Your task to perform on an android device: Add "corsair k70" to the cart on bestbuy Image 0: 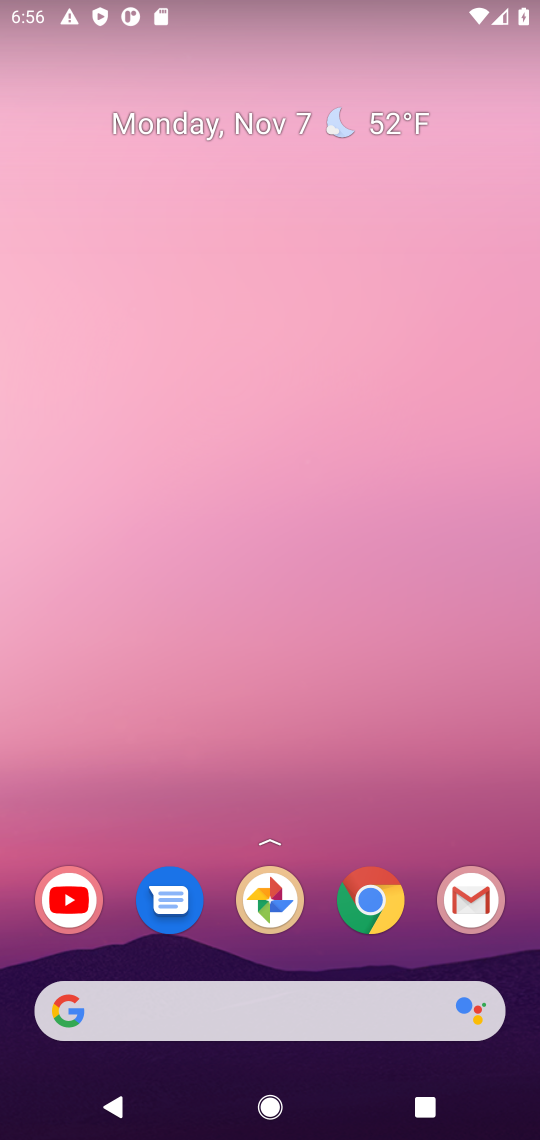
Step 0: click (382, 891)
Your task to perform on an android device: Add "corsair k70" to the cart on bestbuy Image 1: 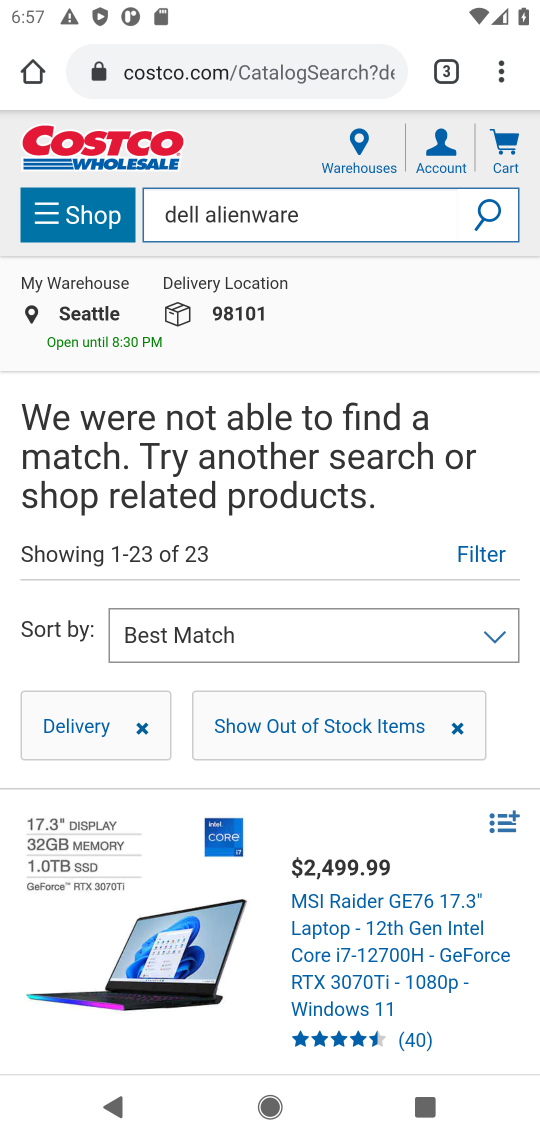
Step 1: click (361, 223)
Your task to perform on an android device: Add "corsair k70" to the cart on bestbuy Image 2: 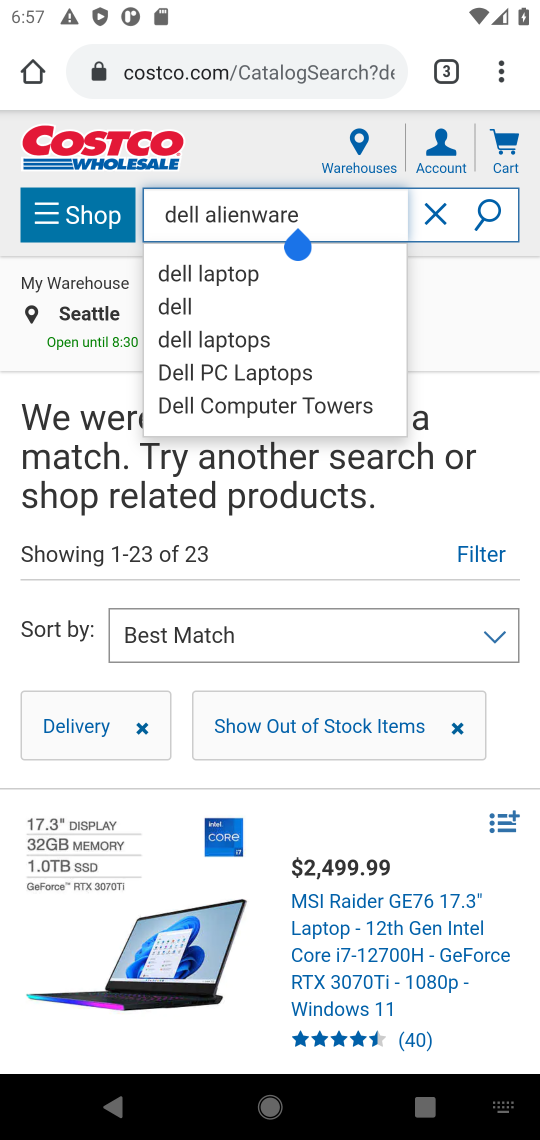
Step 2: click (445, 213)
Your task to perform on an android device: Add "corsair k70" to the cart on bestbuy Image 3: 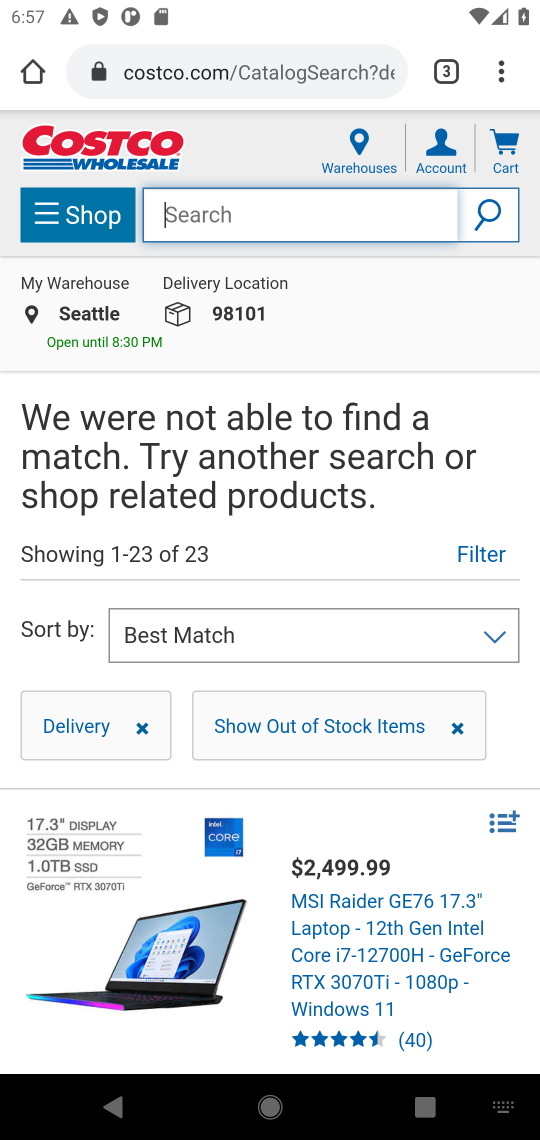
Step 3: click (454, 75)
Your task to perform on an android device: Add "corsair k70" to the cart on bestbuy Image 4: 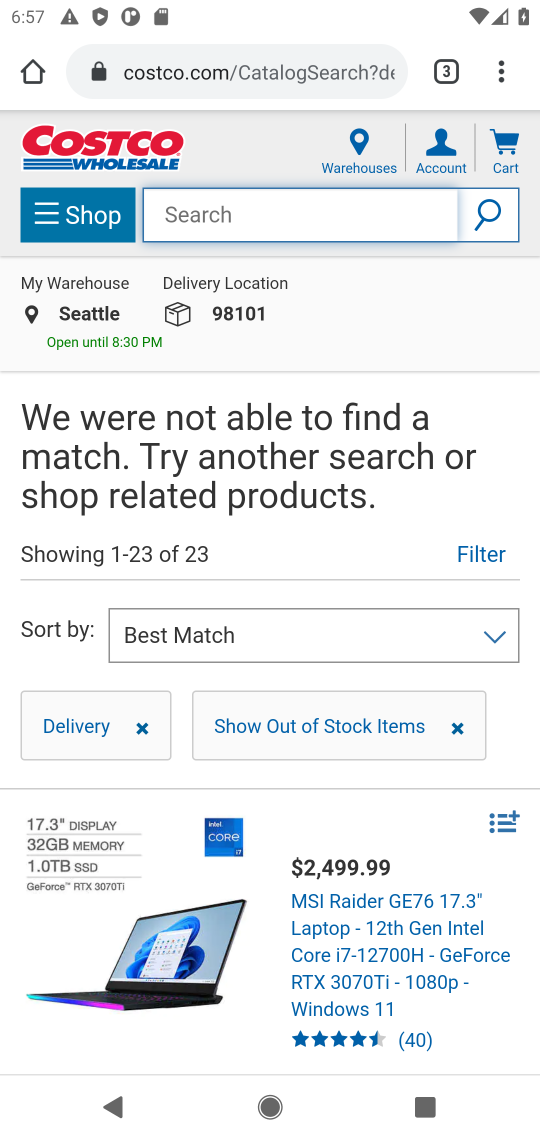
Step 4: click (449, 65)
Your task to perform on an android device: Add "corsair k70" to the cart on bestbuy Image 5: 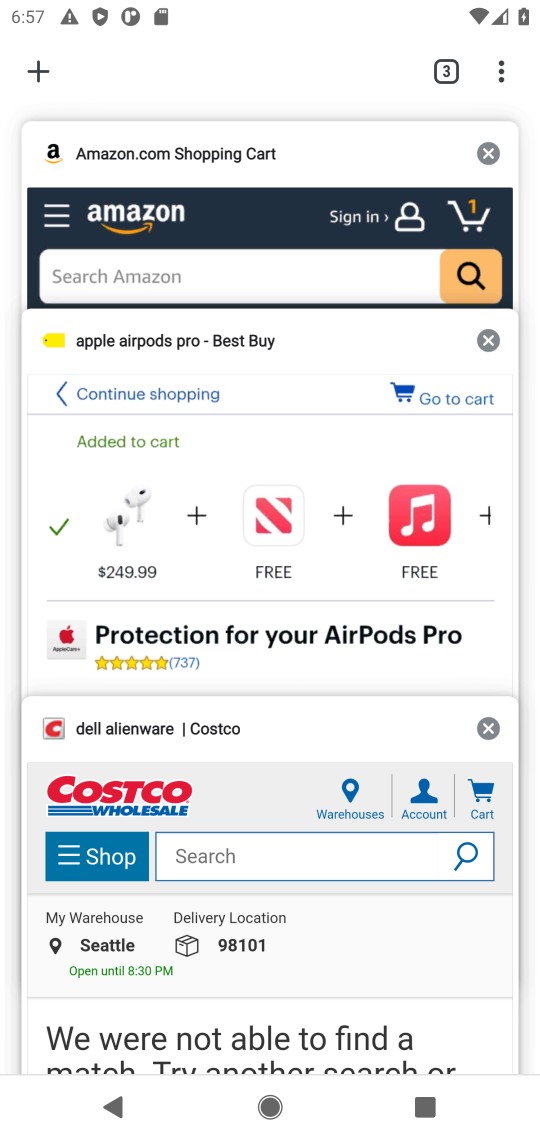
Step 5: drag from (242, 182) to (255, 1020)
Your task to perform on an android device: Add "corsair k70" to the cart on bestbuy Image 6: 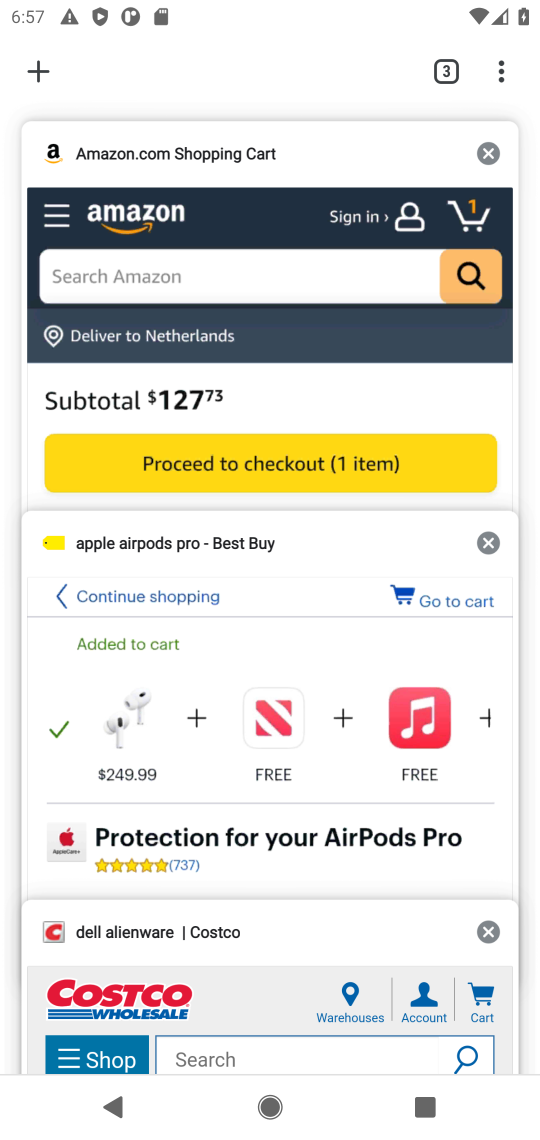
Step 6: click (47, 65)
Your task to perform on an android device: Add "corsair k70" to the cart on bestbuy Image 7: 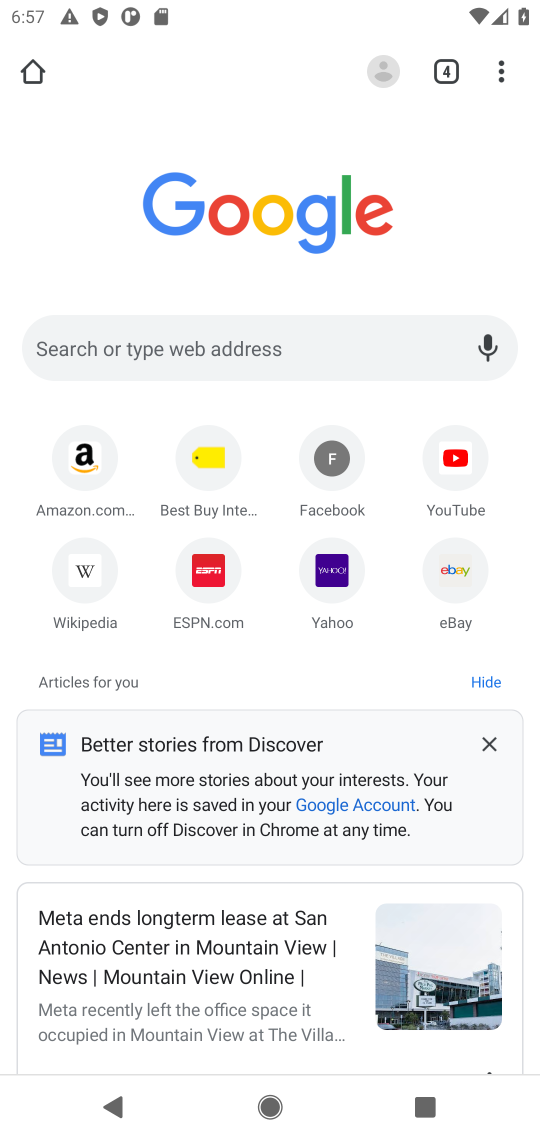
Step 7: click (167, 359)
Your task to perform on an android device: Add "corsair k70" to the cart on bestbuy Image 8: 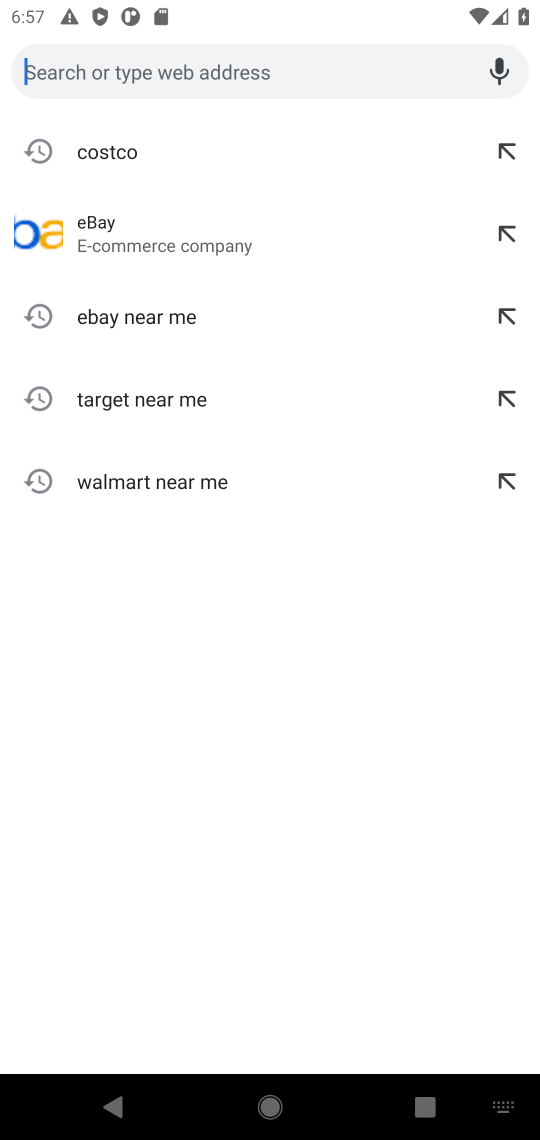
Step 8: click (213, 85)
Your task to perform on an android device: Add "corsair k70" to the cart on bestbuy Image 9: 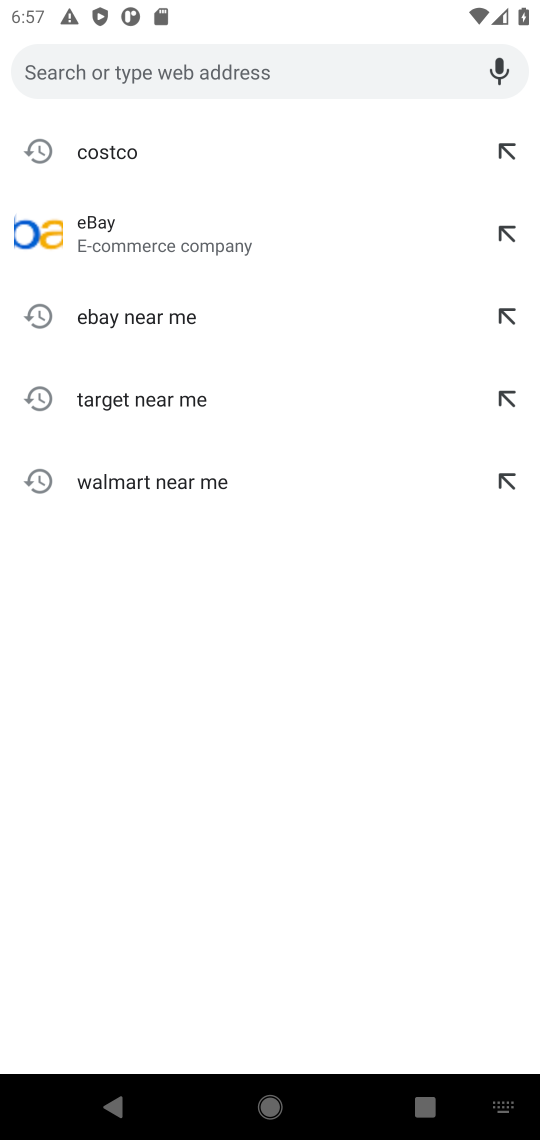
Step 9: type "bestbuy"
Your task to perform on an android device: Add "corsair k70" to the cart on bestbuy Image 10: 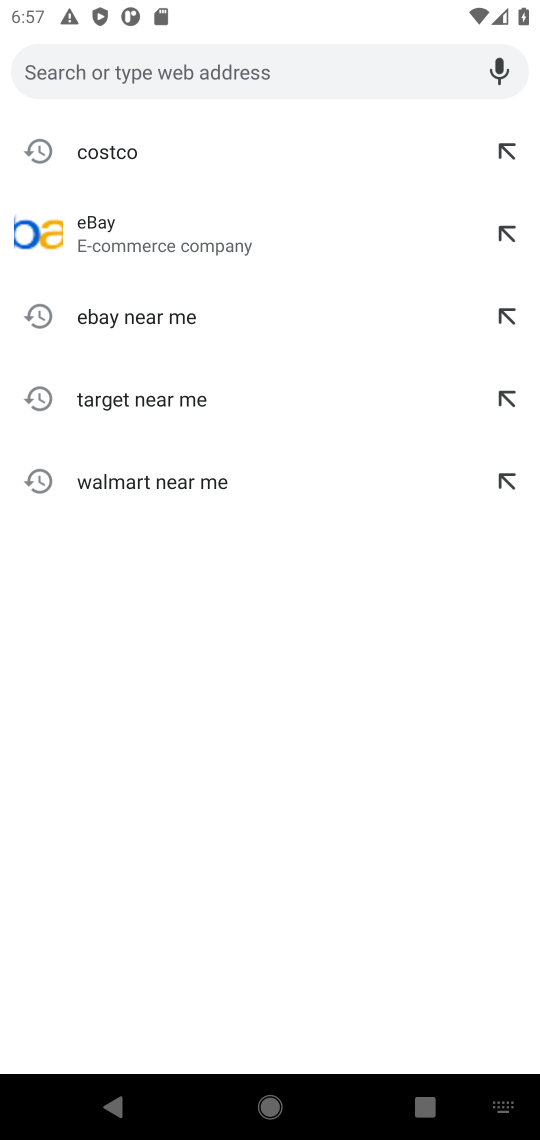
Step 10: click (382, 800)
Your task to perform on an android device: Add "corsair k70" to the cart on bestbuy Image 11: 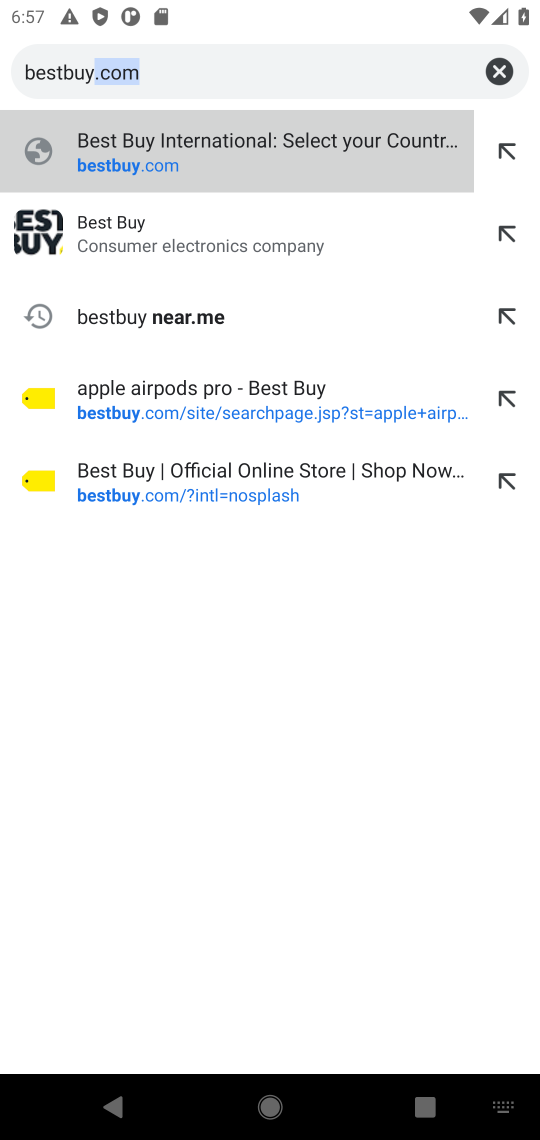
Step 11: click (174, 162)
Your task to perform on an android device: Add "corsair k70" to the cart on bestbuy Image 12: 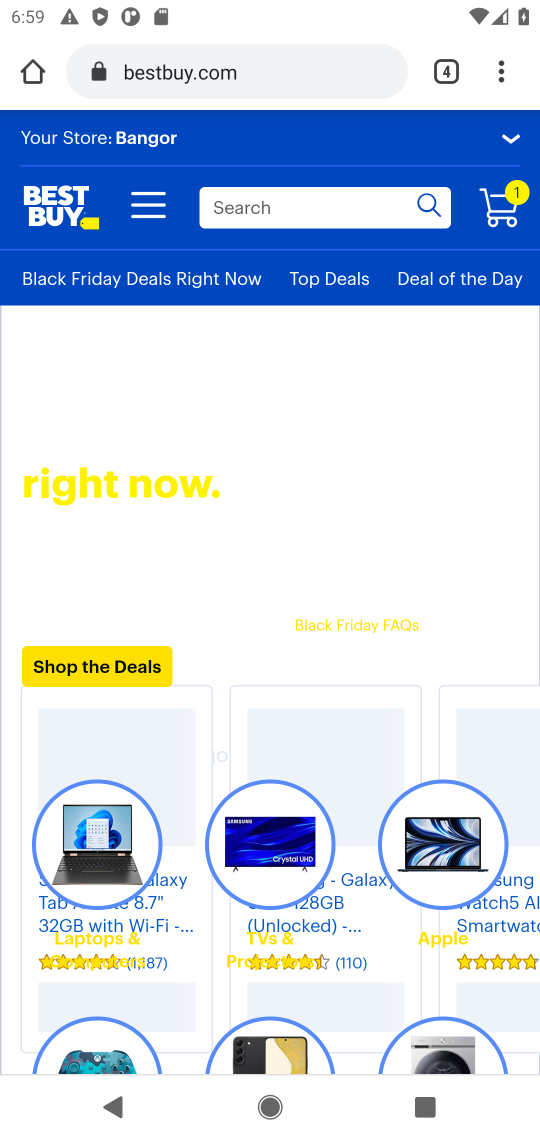
Step 12: click (238, 203)
Your task to perform on an android device: Add "corsair k70" to the cart on bestbuy Image 13: 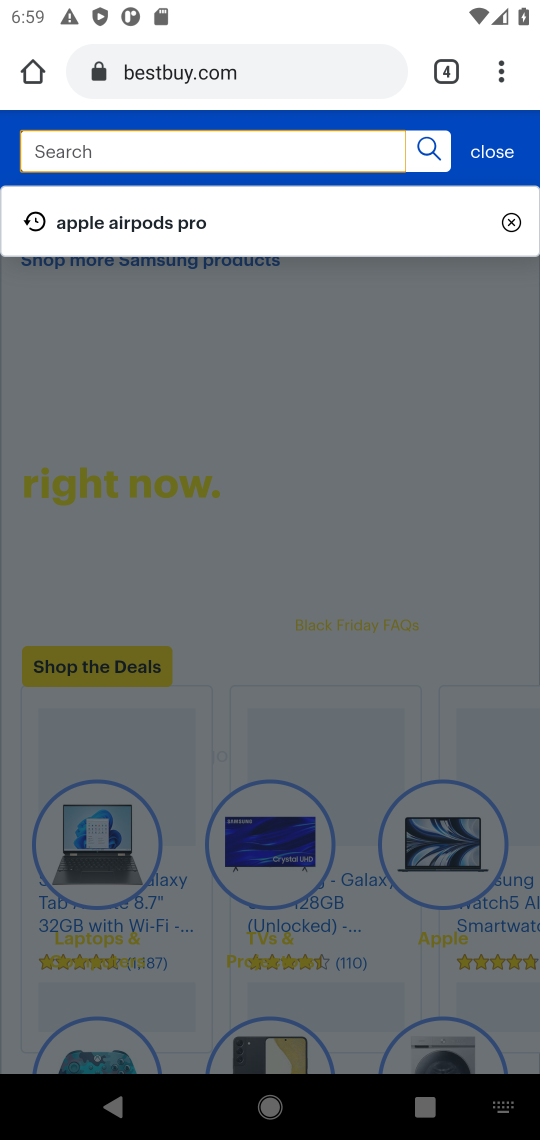
Step 13: click (184, 141)
Your task to perform on an android device: Add "corsair k70" to the cart on bestbuy Image 14: 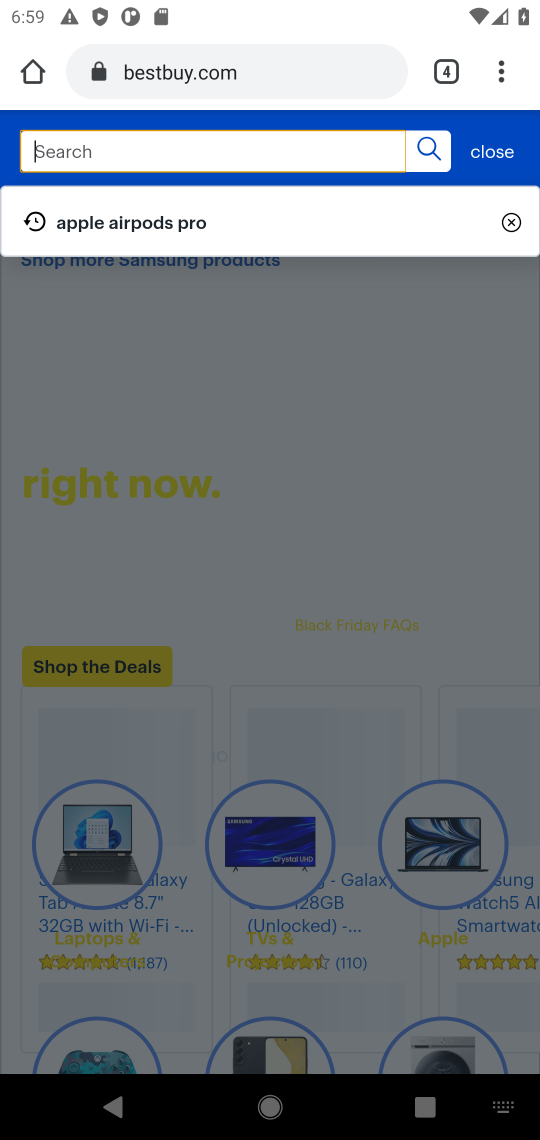
Step 14: type "corsair k70"
Your task to perform on an android device: Add "corsair k70" to the cart on bestbuy Image 15: 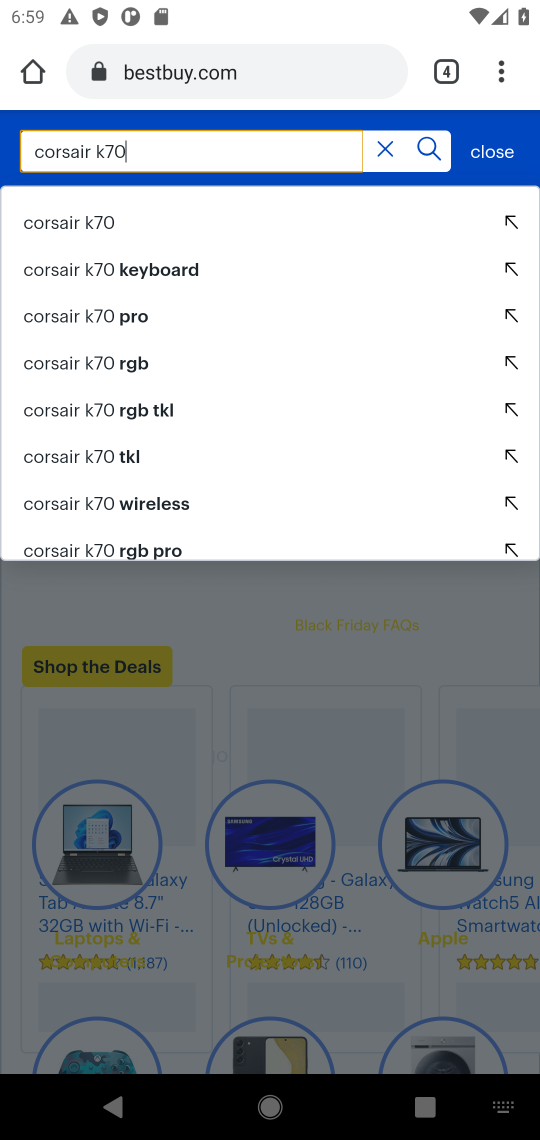
Step 15: click (104, 216)
Your task to perform on an android device: Add "corsair k70" to the cart on bestbuy Image 16: 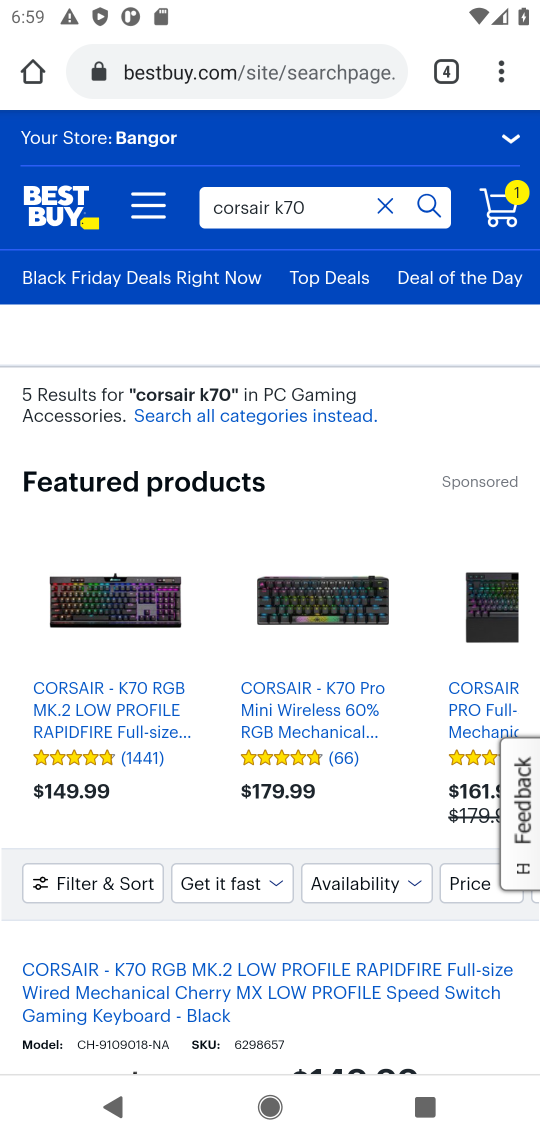
Step 16: click (89, 703)
Your task to perform on an android device: Add "corsair k70" to the cart on bestbuy Image 17: 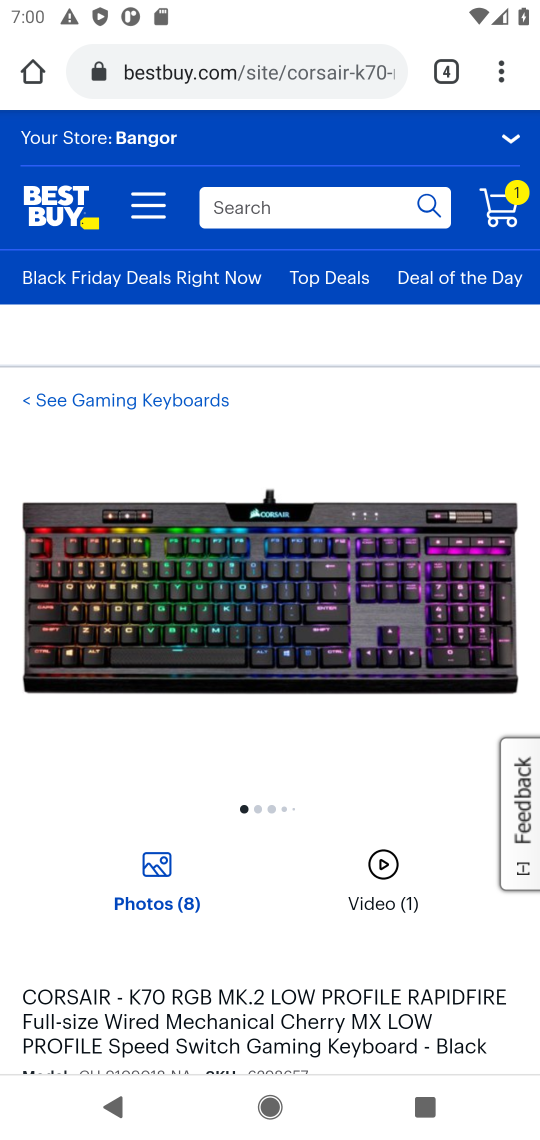
Step 17: drag from (125, 981) to (261, 338)
Your task to perform on an android device: Add "corsair k70" to the cart on bestbuy Image 18: 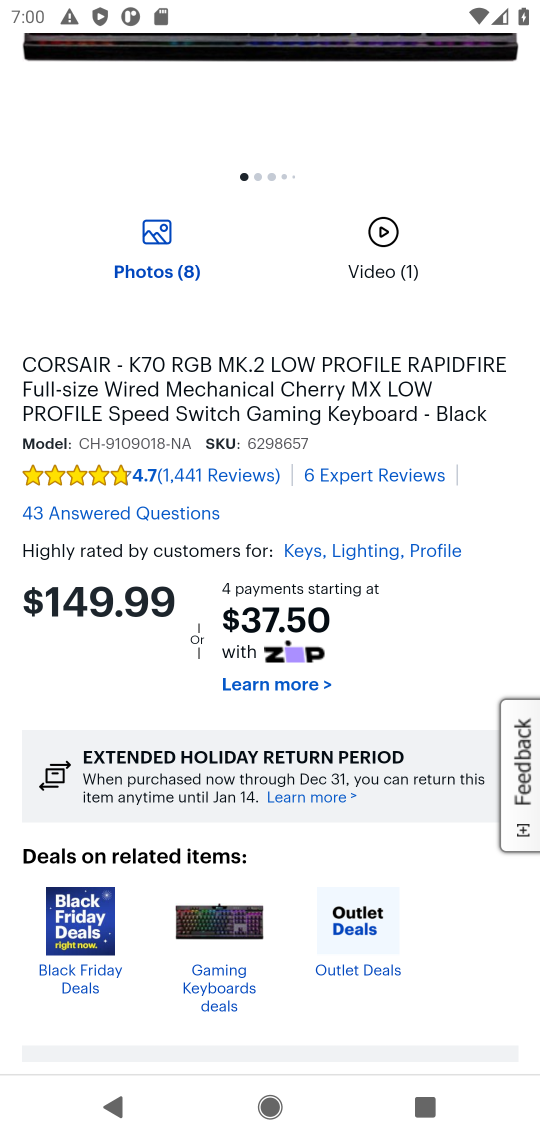
Step 18: drag from (292, 892) to (356, 146)
Your task to perform on an android device: Add "corsair k70" to the cart on bestbuy Image 19: 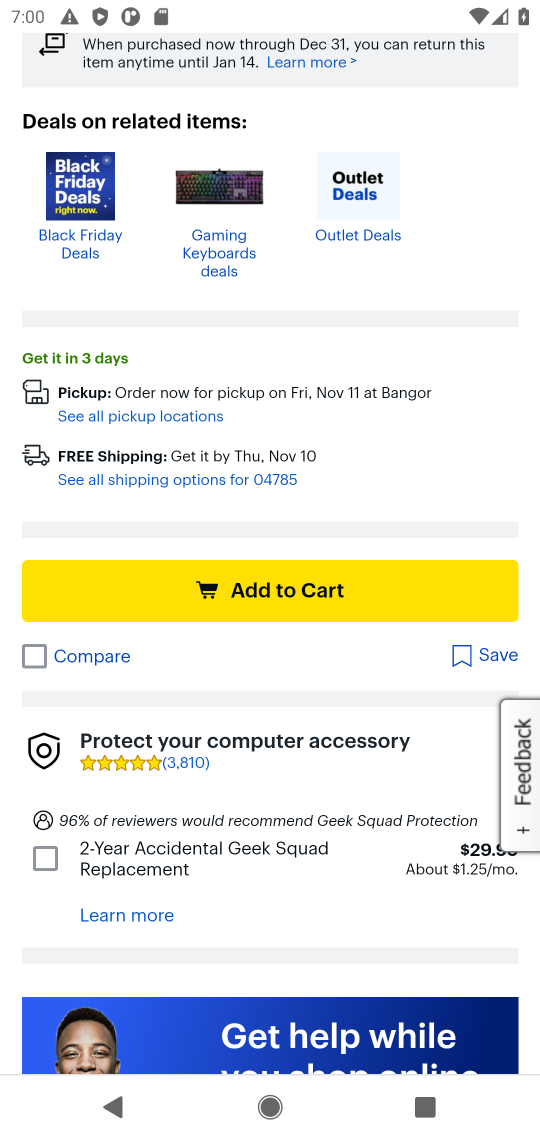
Step 19: click (309, 598)
Your task to perform on an android device: Add "corsair k70" to the cart on bestbuy Image 20: 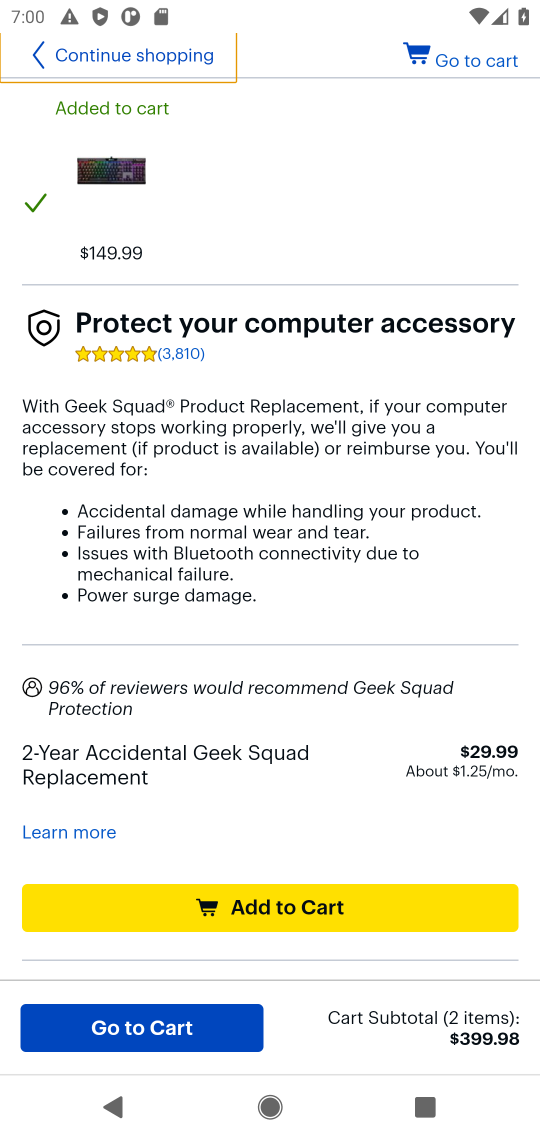
Step 20: task complete